Your task to perform on an android device: Go to network settings Image 0: 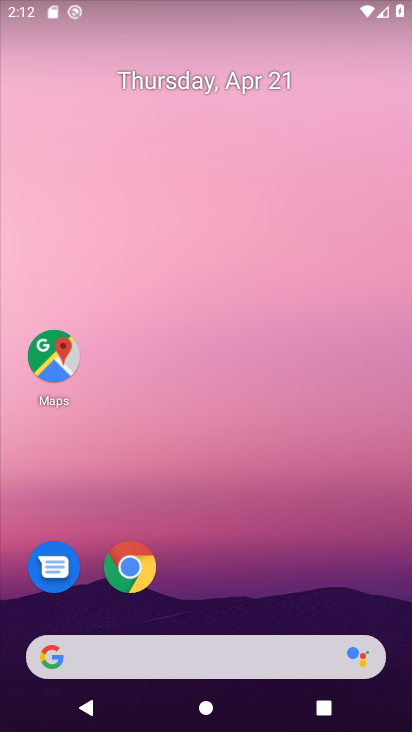
Step 0: drag from (251, 393) to (212, 13)
Your task to perform on an android device: Go to network settings Image 1: 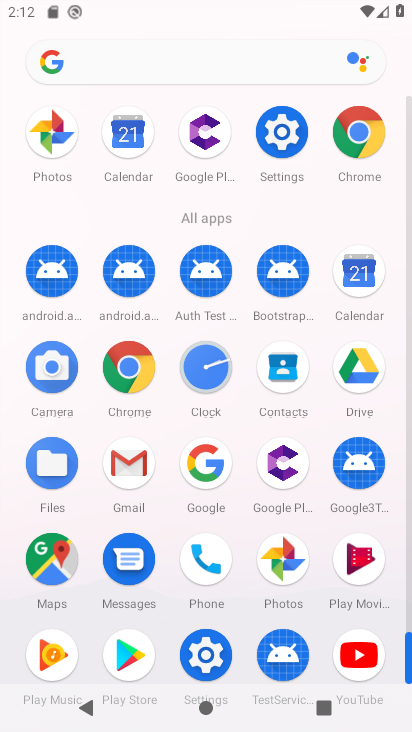
Step 1: drag from (9, 582) to (18, 290)
Your task to perform on an android device: Go to network settings Image 2: 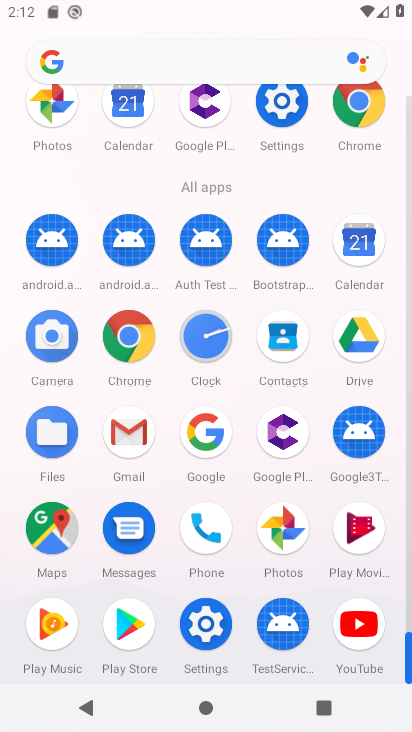
Step 2: click (207, 620)
Your task to perform on an android device: Go to network settings Image 3: 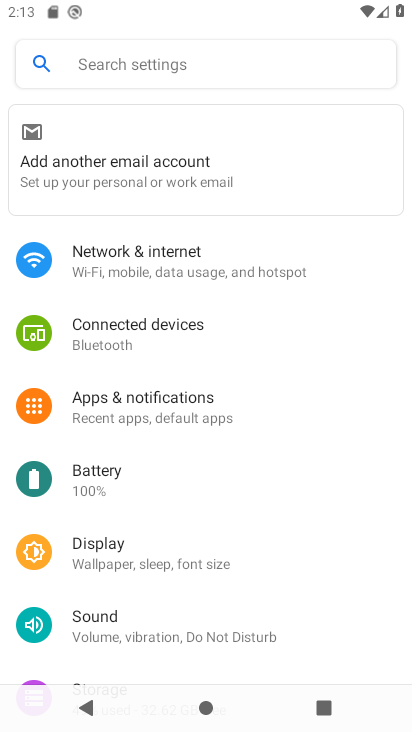
Step 3: drag from (284, 577) to (293, 262)
Your task to perform on an android device: Go to network settings Image 4: 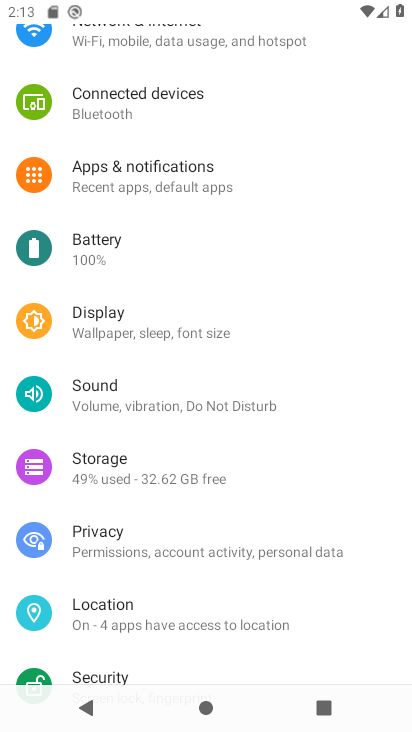
Step 4: drag from (243, 115) to (240, 569)
Your task to perform on an android device: Go to network settings Image 5: 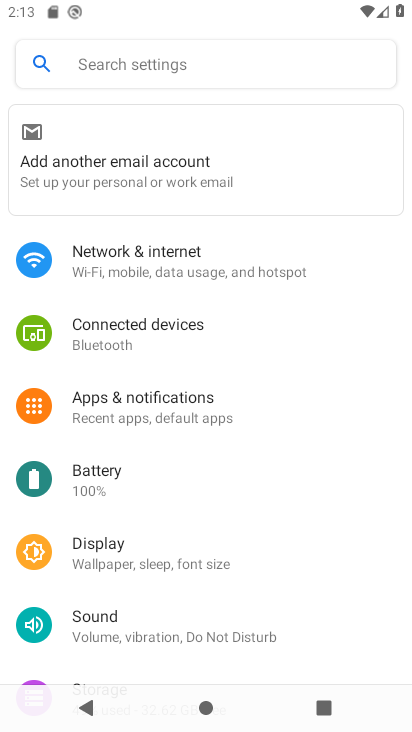
Step 5: click (203, 260)
Your task to perform on an android device: Go to network settings Image 6: 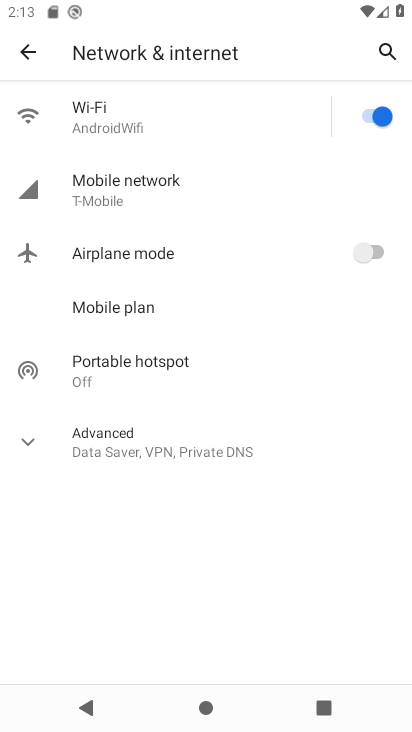
Step 6: click (175, 170)
Your task to perform on an android device: Go to network settings Image 7: 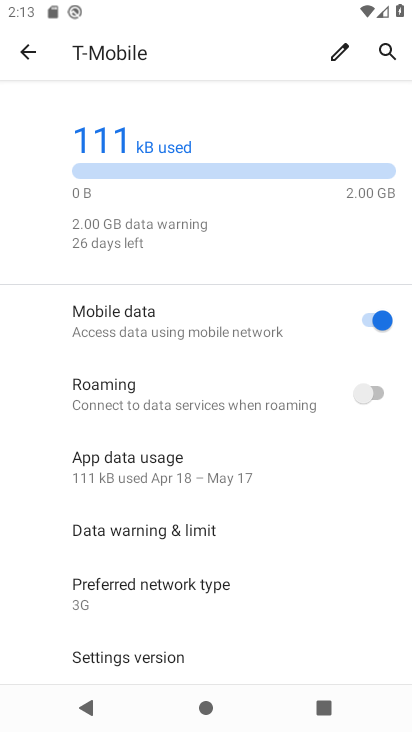
Step 7: task complete